Your task to perform on an android device: uninstall "Microsoft Excel" Image 0: 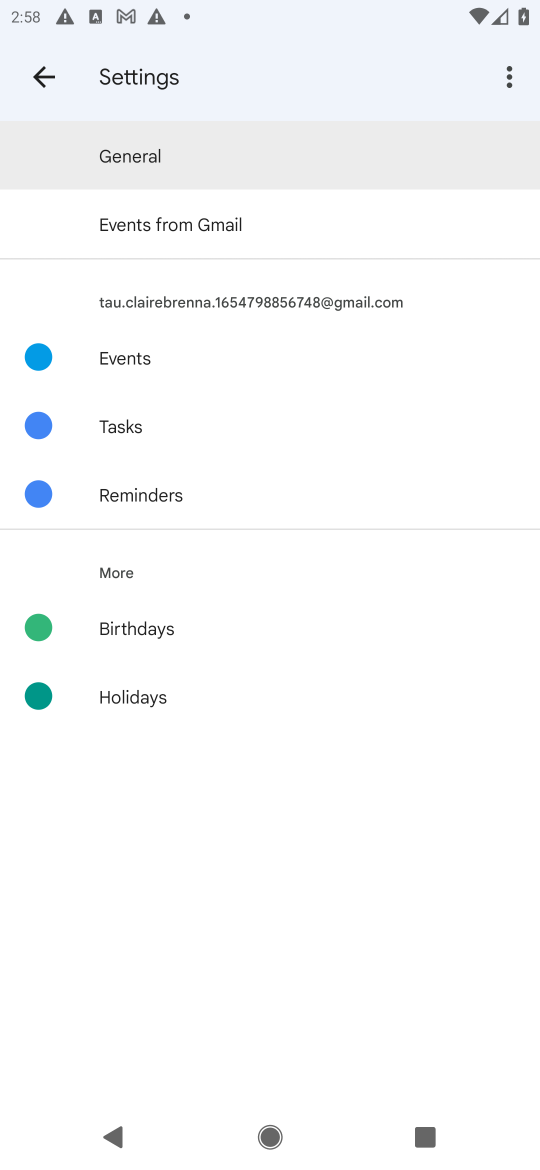
Step 0: press home button
Your task to perform on an android device: uninstall "Microsoft Excel" Image 1: 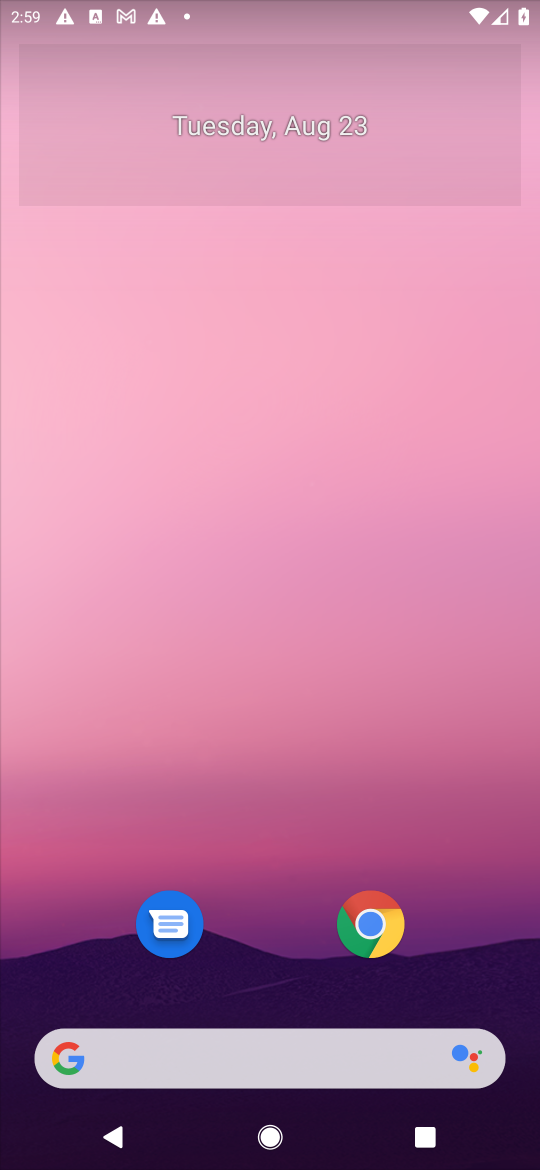
Step 1: drag from (463, 962) to (475, 205)
Your task to perform on an android device: uninstall "Microsoft Excel" Image 2: 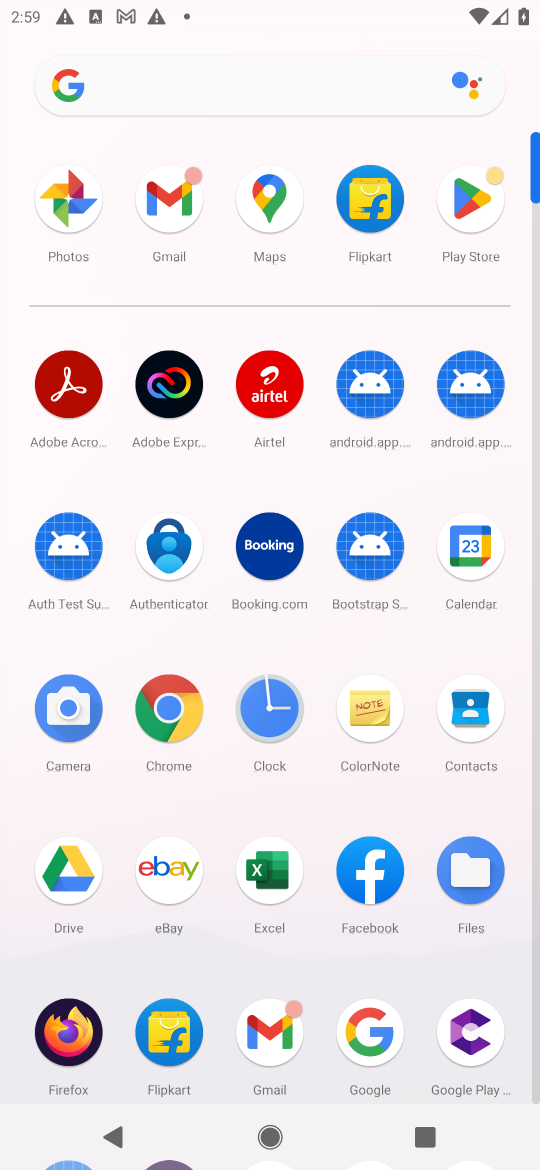
Step 2: click (466, 199)
Your task to perform on an android device: uninstall "Microsoft Excel" Image 3: 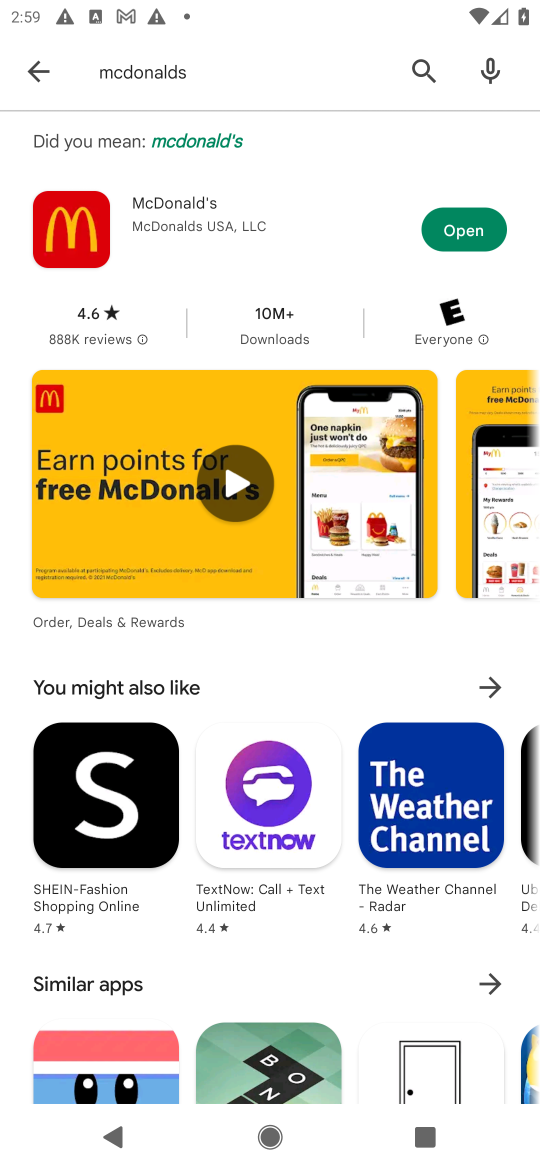
Step 3: press back button
Your task to perform on an android device: uninstall "Microsoft Excel" Image 4: 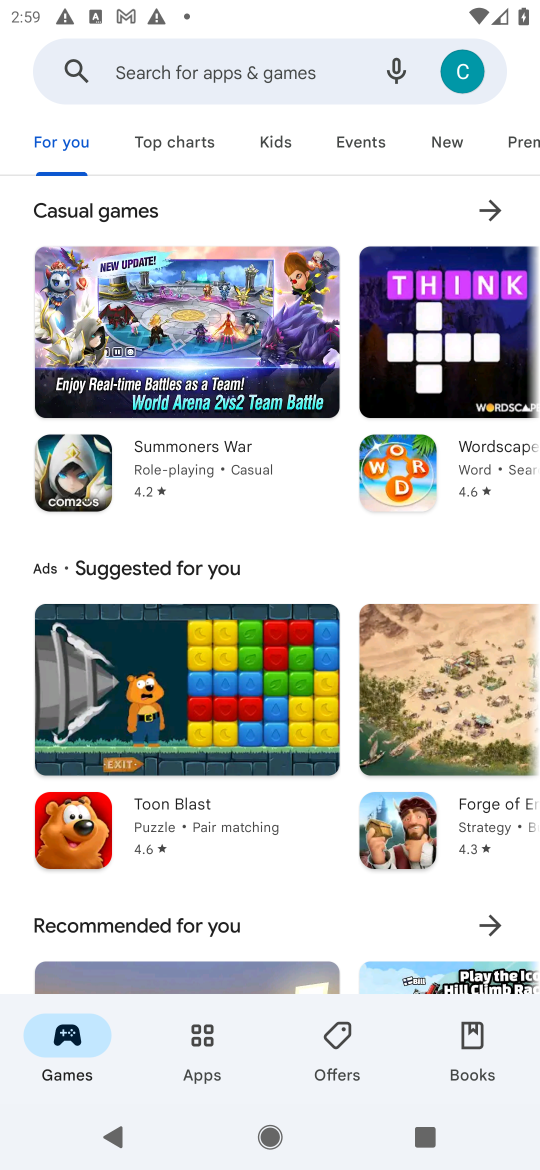
Step 4: click (242, 74)
Your task to perform on an android device: uninstall "Microsoft Excel" Image 5: 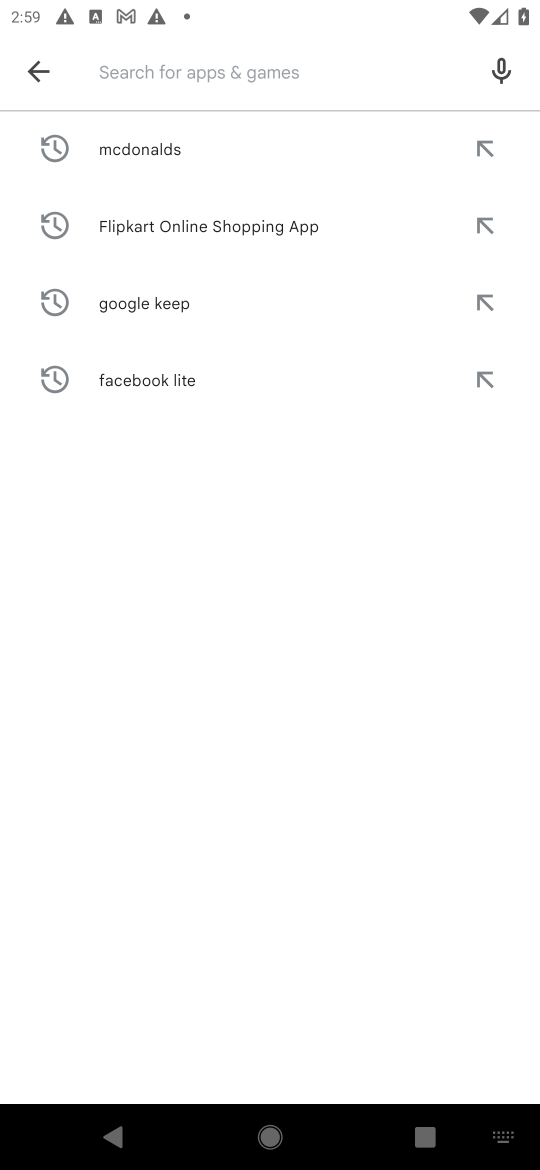
Step 5: press enter
Your task to perform on an android device: uninstall "Microsoft Excel" Image 6: 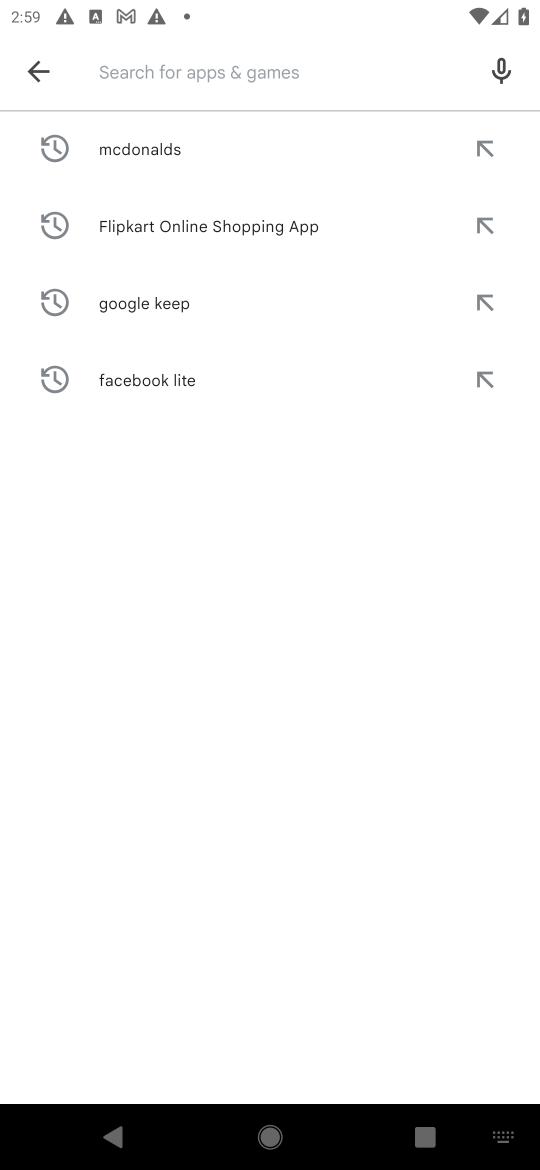
Step 6: type "microsoft excel"
Your task to perform on an android device: uninstall "Microsoft Excel" Image 7: 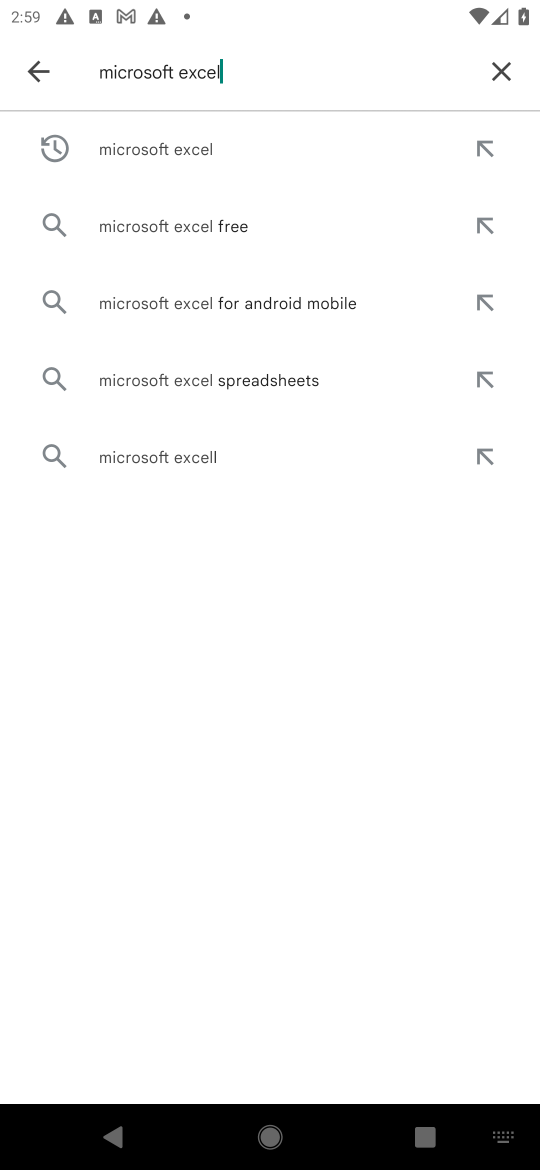
Step 7: click (207, 146)
Your task to perform on an android device: uninstall "Microsoft Excel" Image 8: 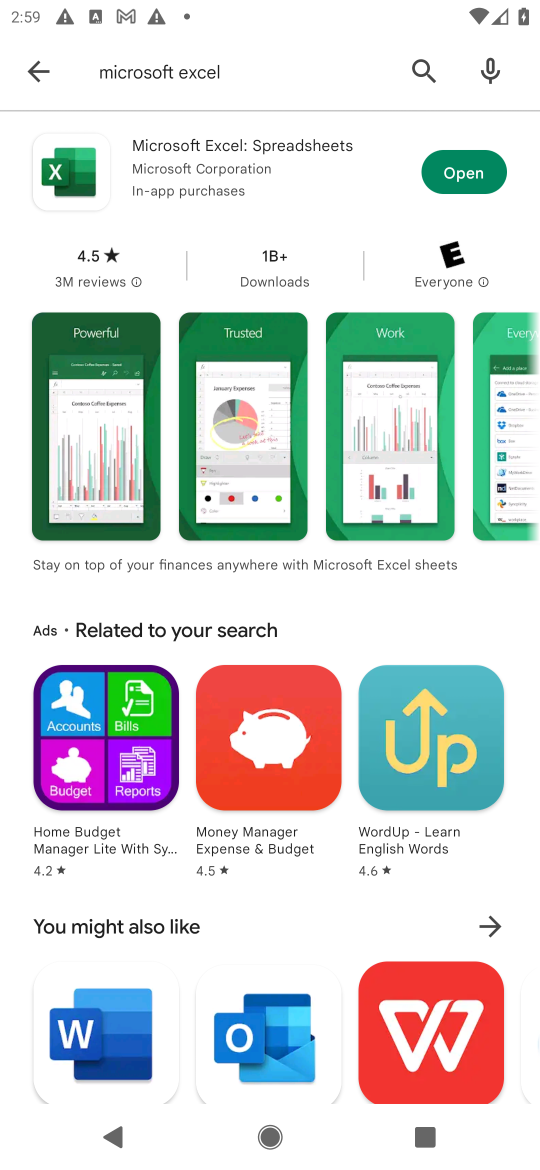
Step 8: task complete